Your task to perform on an android device: turn on airplane mode Image 0: 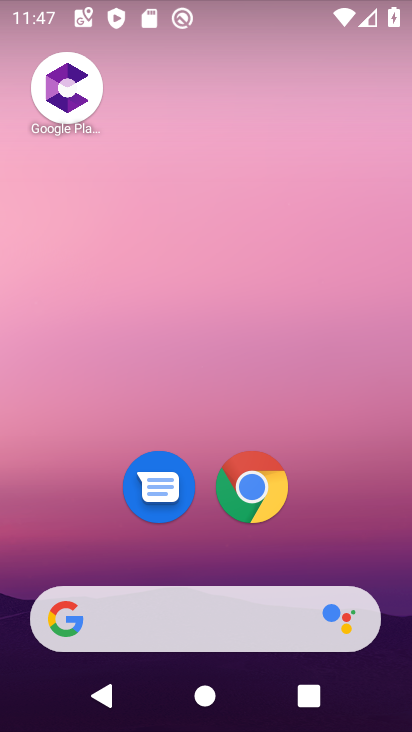
Step 0: drag from (318, 567) to (397, 400)
Your task to perform on an android device: turn on airplane mode Image 1: 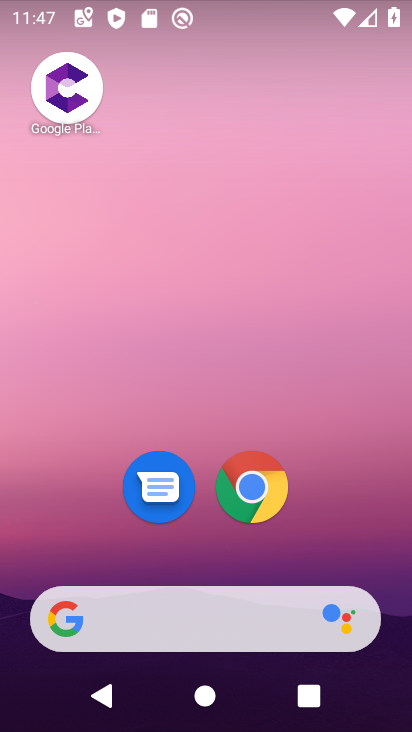
Step 1: drag from (361, 560) to (327, 48)
Your task to perform on an android device: turn on airplane mode Image 2: 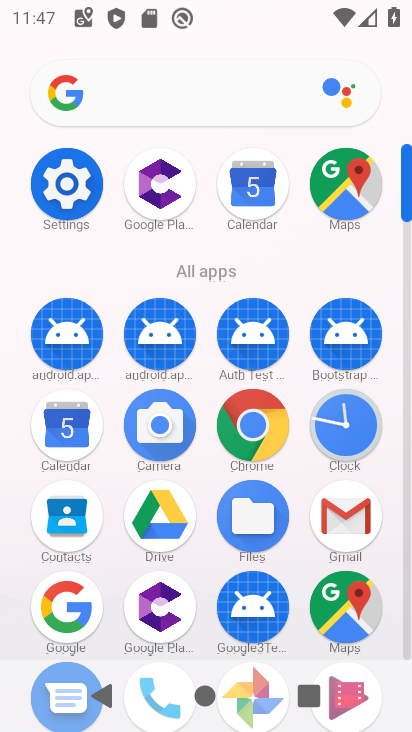
Step 2: click (53, 152)
Your task to perform on an android device: turn on airplane mode Image 3: 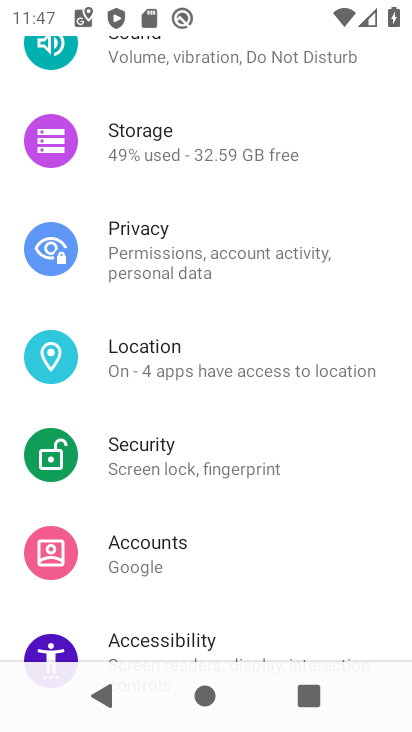
Step 3: drag from (247, 101) to (240, 709)
Your task to perform on an android device: turn on airplane mode Image 4: 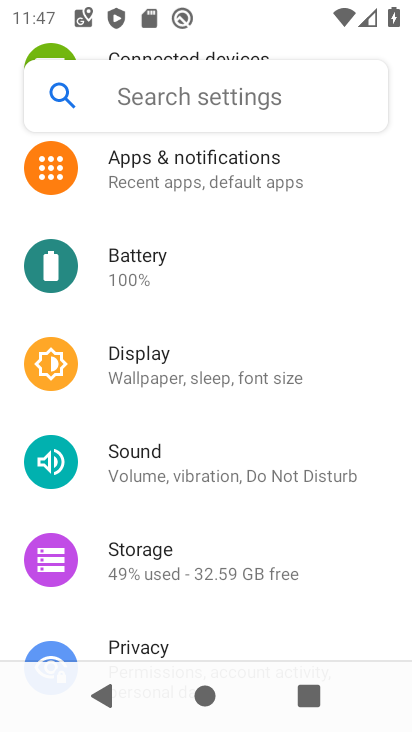
Step 4: drag from (238, 212) to (240, 479)
Your task to perform on an android device: turn on airplane mode Image 5: 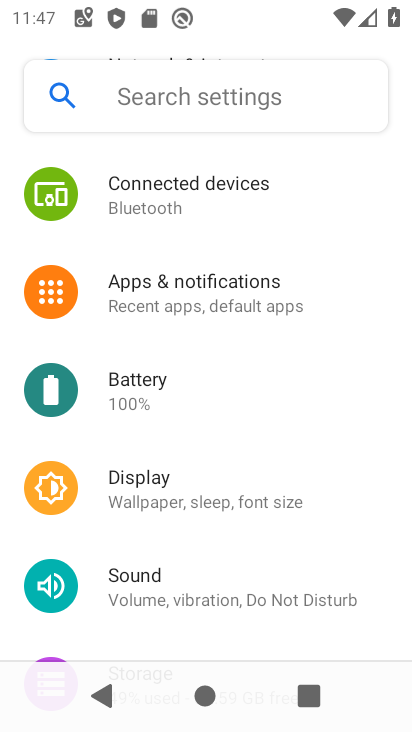
Step 5: drag from (235, 221) to (235, 592)
Your task to perform on an android device: turn on airplane mode Image 6: 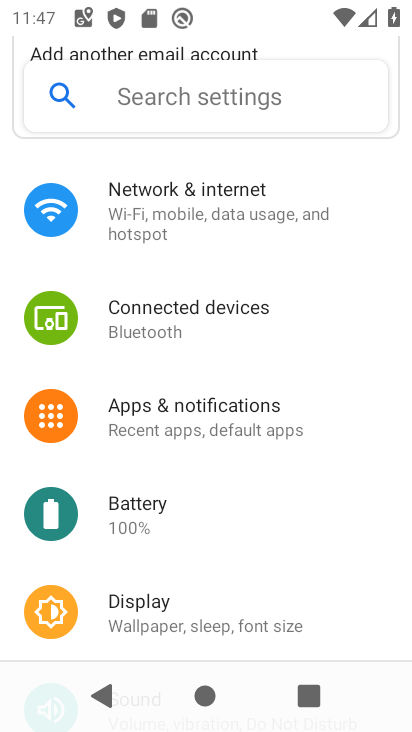
Step 6: drag from (242, 164) to (227, 528)
Your task to perform on an android device: turn on airplane mode Image 7: 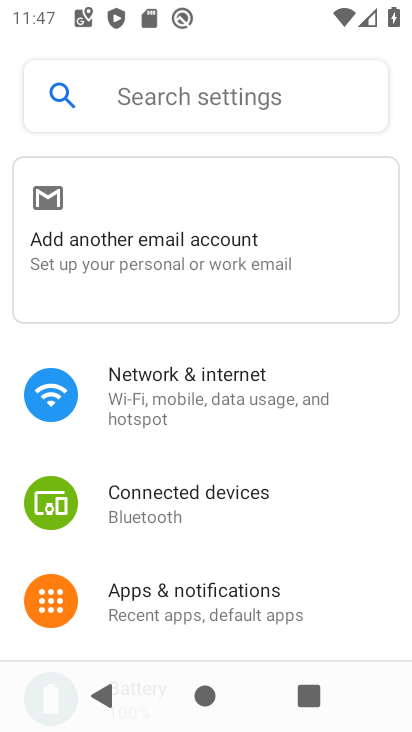
Step 7: click (213, 364)
Your task to perform on an android device: turn on airplane mode Image 8: 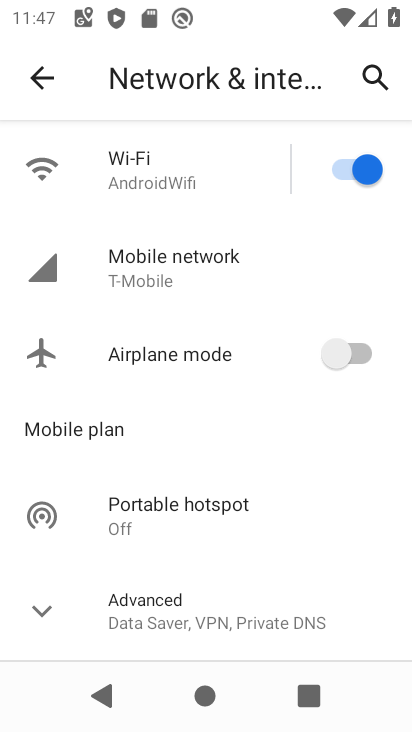
Step 8: click (335, 347)
Your task to perform on an android device: turn on airplane mode Image 9: 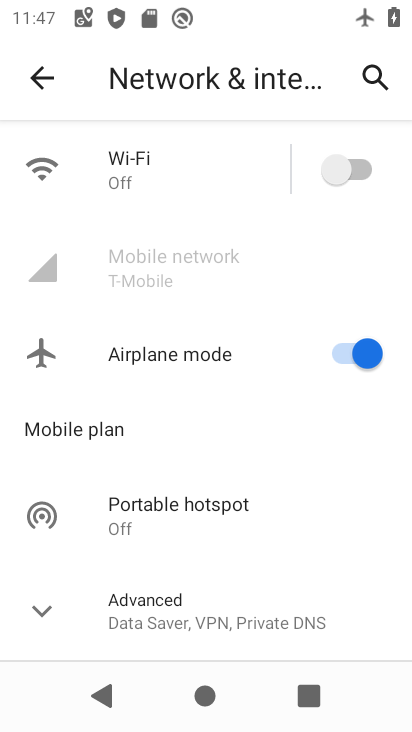
Step 9: task complete